Your task to perform on an android device: turn smart compose on in the gmail app Image 0: 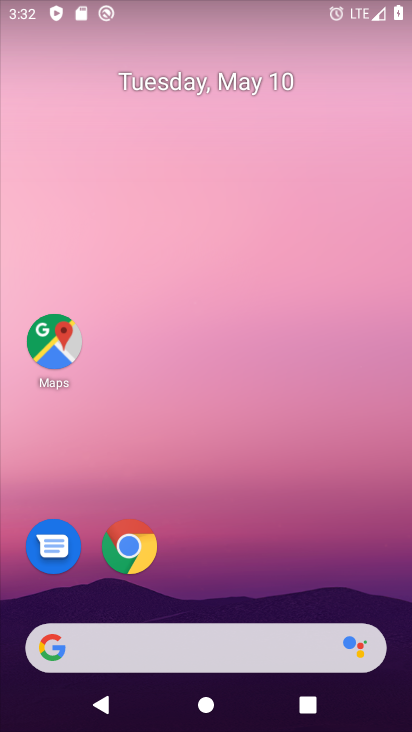
Step 0: drag from (267, 601) to (293, 20)
Your task to perform on an android device: turn smart compose on in the gmail app Image 1: 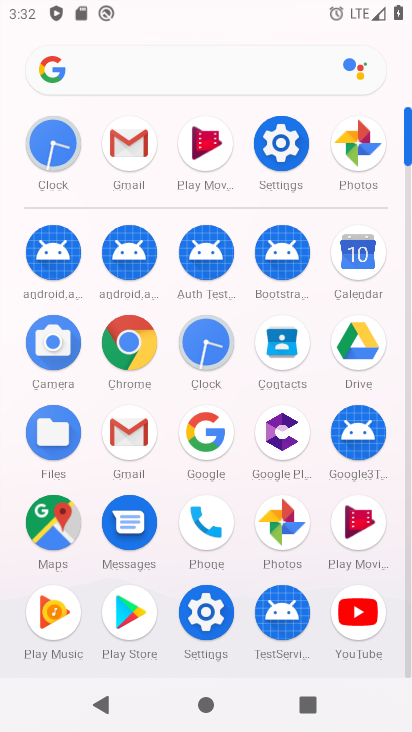
Step 1: click (123, 443)
Your task to perform on an android device: turn smart compose on in the gmail app Image 2: 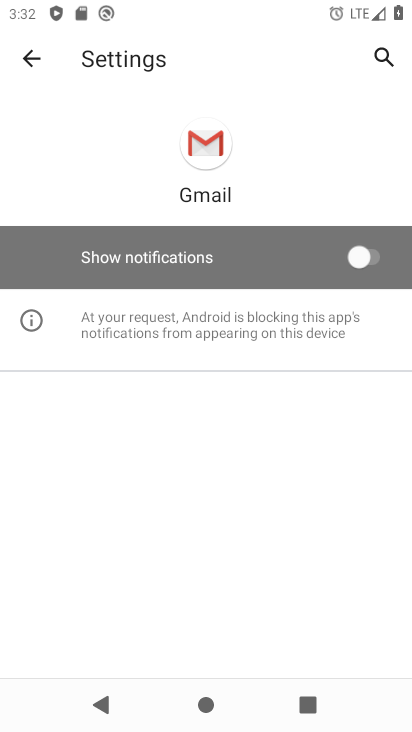
Step 2: click (20, 61)
Your task to perform on an android device: turn smart compose on in the gmail app Image 3: 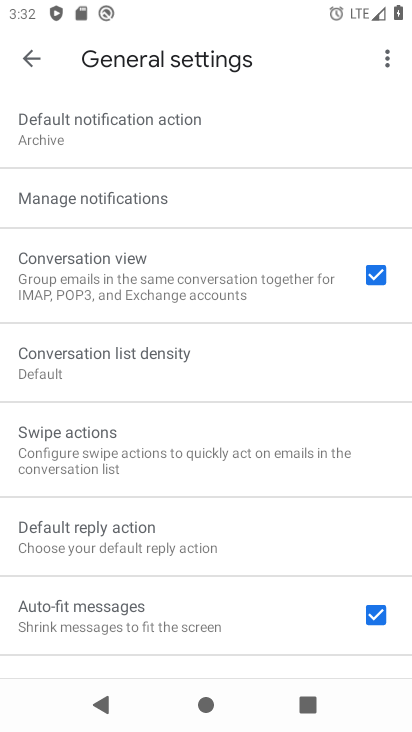
Step 3: click (42, 57)
Your task to perform on an android device: turn smart compose on in the gmail app Image 4: 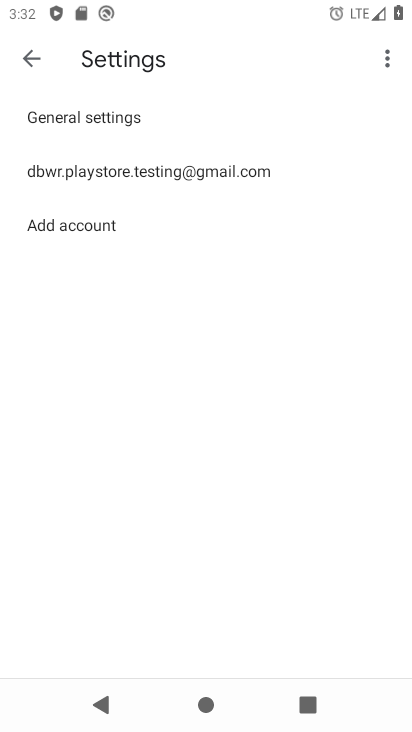
Step 4: click (193, 182)
Your task to perform on an android device: turn smart compose on in the gmail app Image 5: 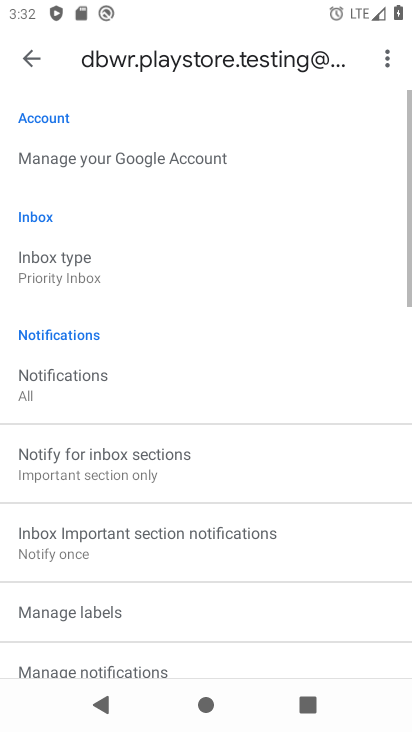
Step 5: task complete